Your task to perform on an android device: toggle priority inbox in the gmail app Image 0: 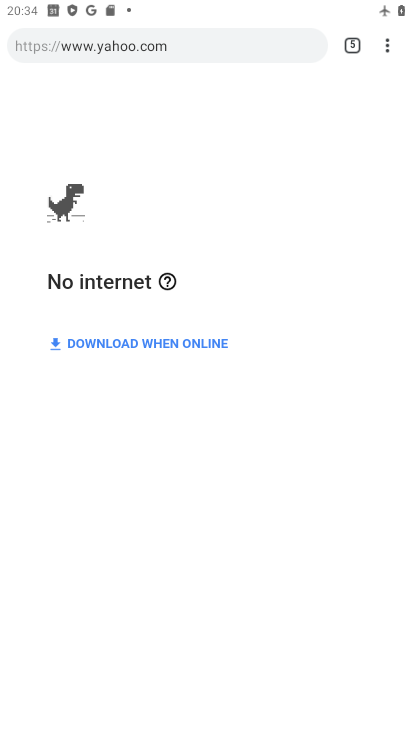
Step 0: press home button
Your task to perform on an android device: toggle priority inbox in the gmail app Image 1: 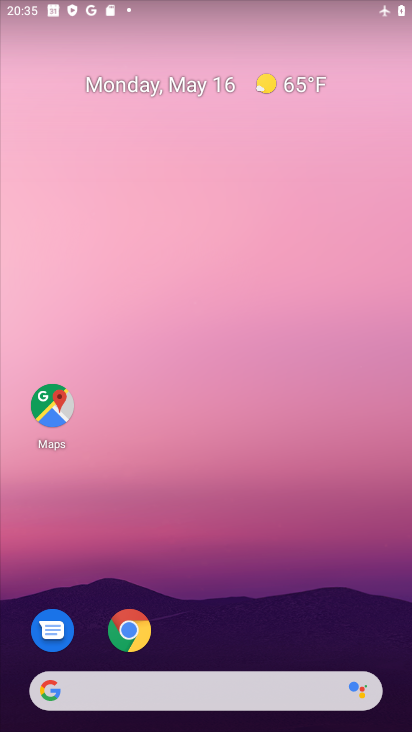
Step 1: drag from (209, 645) to (198, 257)
Your task to perform on an android device: toggle priority inbox in the gmail app Image 2: 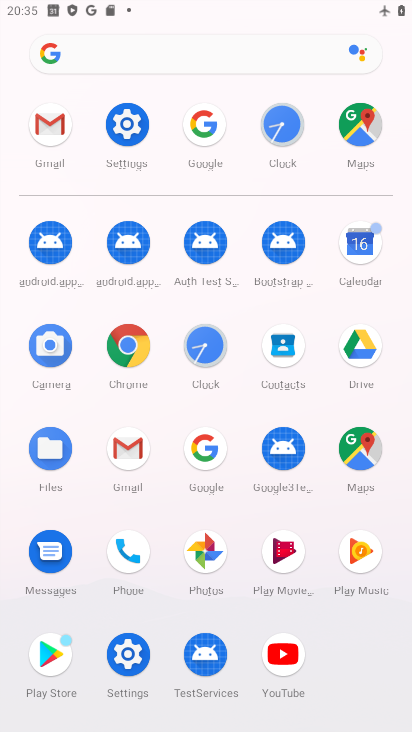
Step 2: click (133, 425)
Your task to perform on an android device: toggle priority inbox in the gmail app Image 3: 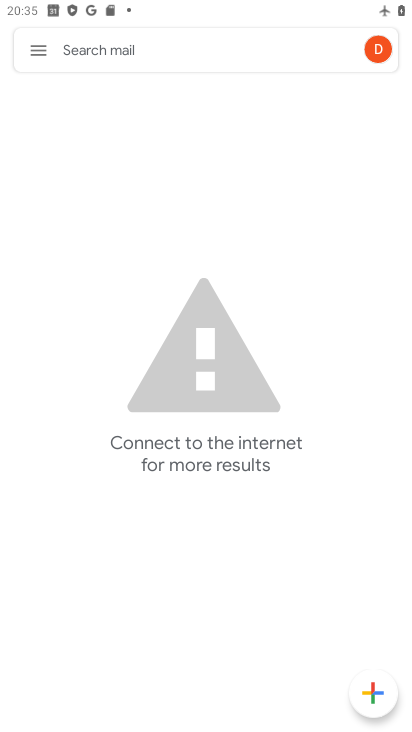
Step 3: click (41, 49)
Your task to perform on an android device: toggle priority inbox in the gmail app Image 4: 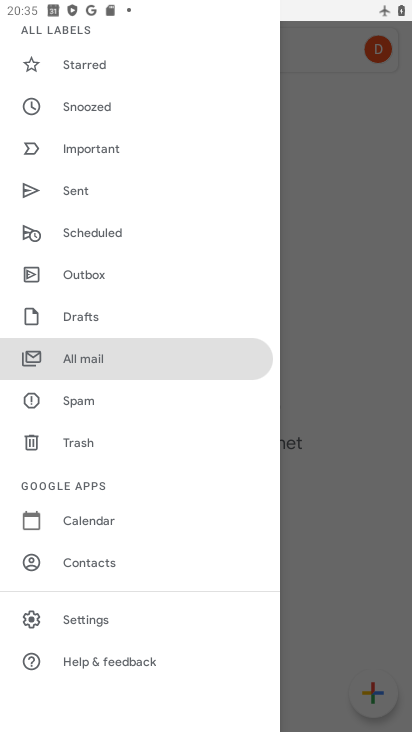
Step 4: click (90, 621)
Your task to perform on an android device: toggle priority inbox in the gmail app Image 5: 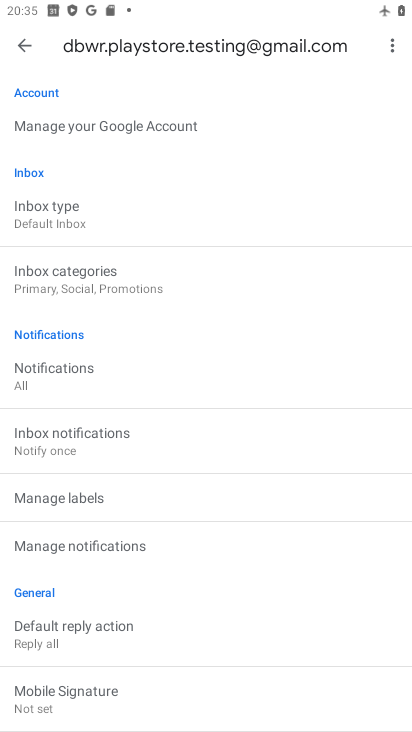
Step 5: click (108, 216)
Your task to perform on an android device: toggle priority inbox in the gmail app Image 6: 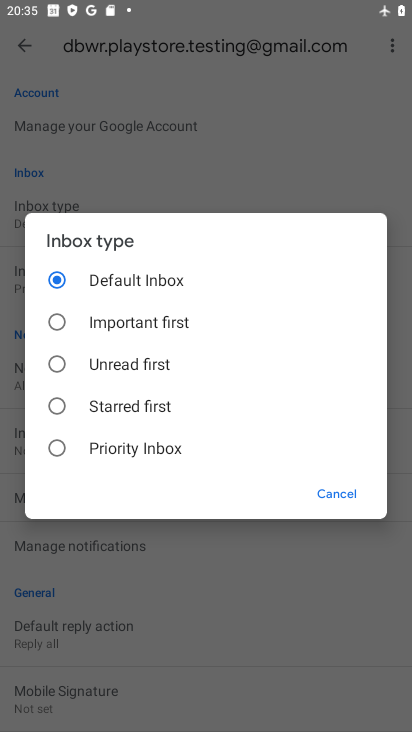
Step 6: click (114, 455)
Your task to perform on an android device: toggle priority inbox in the gmail app Image 7: 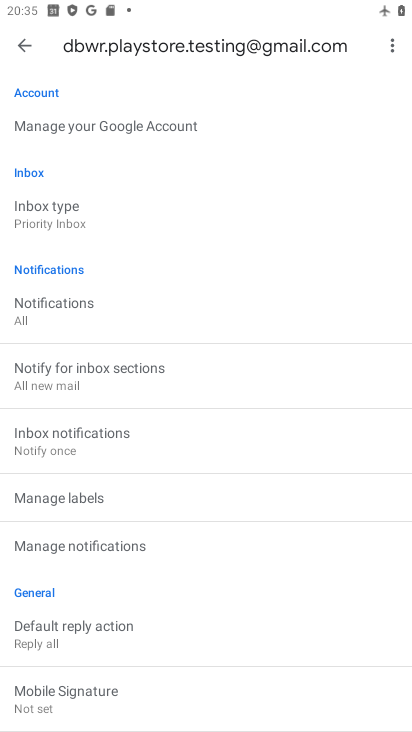
Step 7: task complete